Your task to perform on an android device: open a new tab in the chrome app Image 0: 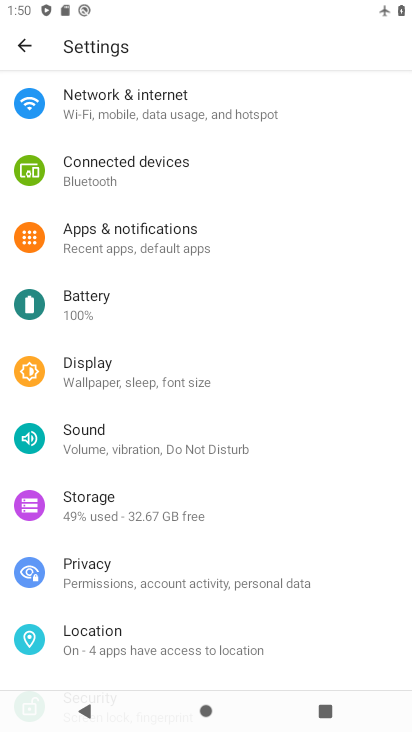
Step 0: press home button
Your task to perform on an android device: open a new tab in the chrome app Image 1: 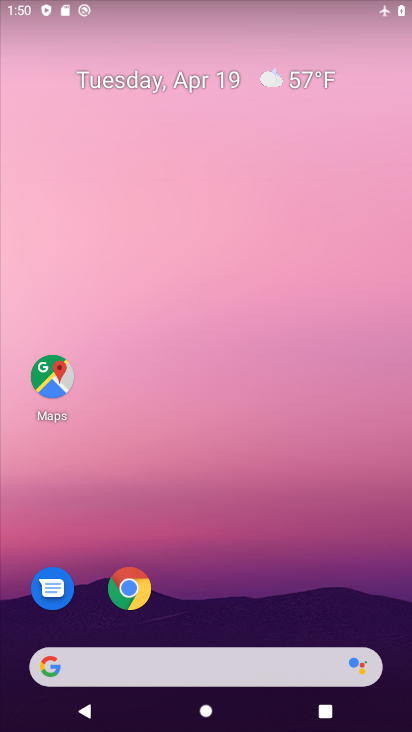
Step 1: click (128, 584)
Your task to perform on an android device: open a new tab in the chrome app Image 2: 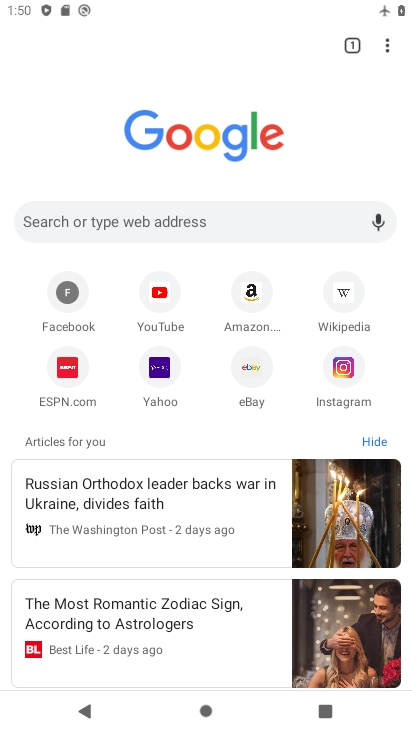
Step 2: click (381, 47)
Your task to perform on an android device: open a new tab in the chrome app Image 3: 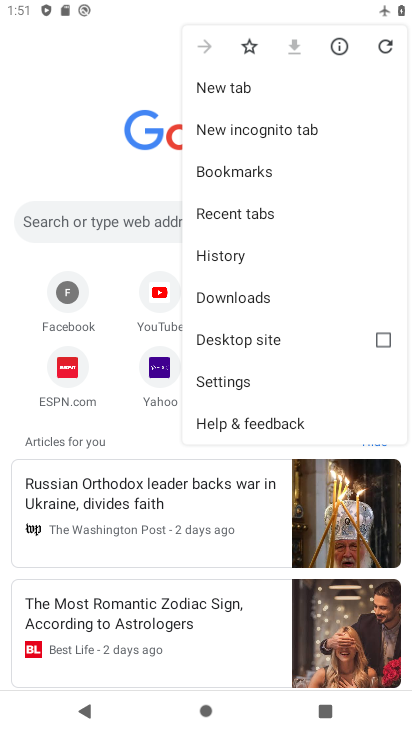
Step 3: click (339, 73)
Your task to perform on an android device: open a new tab in the chrome app Image 4: 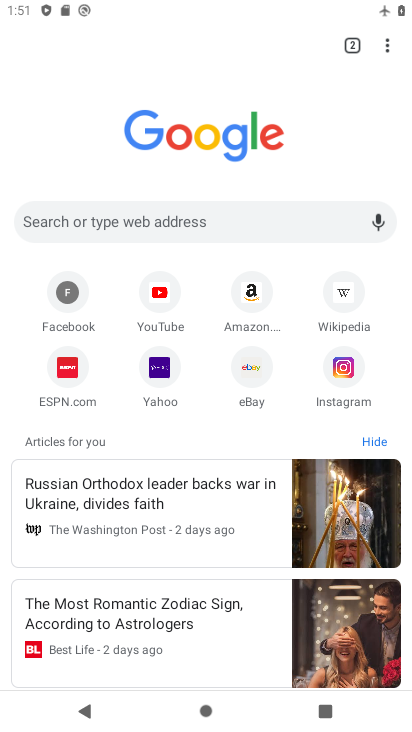
Step 4: task complete